Your task to perform on an android device: toggle airplane mode Image 0: 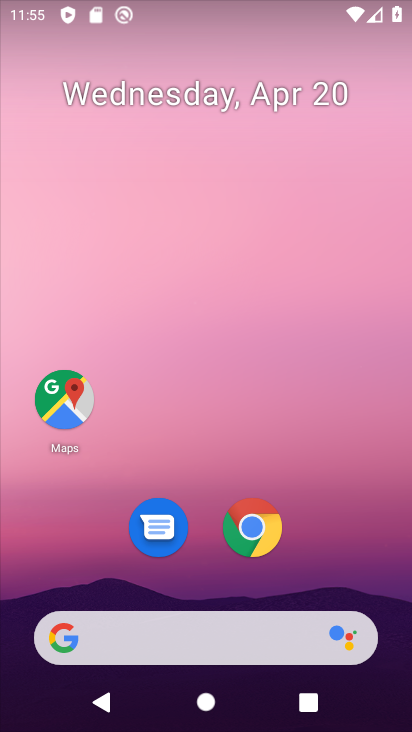
Step 0: drag from (367, 565) to (286, 73)
Your task to perform on an android device: toggle airplane mode Image 1: 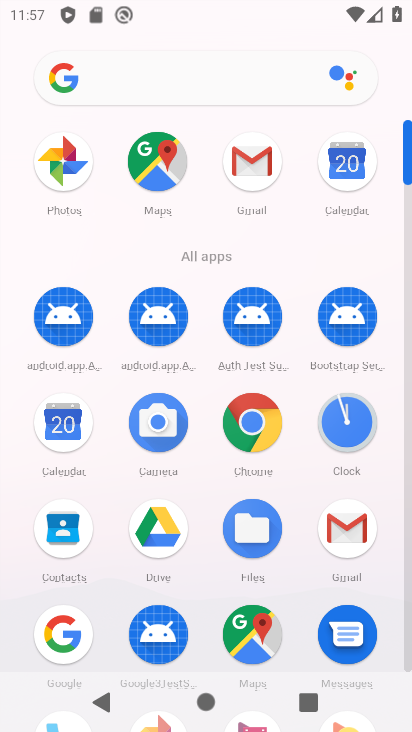
Step 1: drag from (250, 4) to (306, 512)
Your task to perform on an android device: toggle airplane mode Image 2: 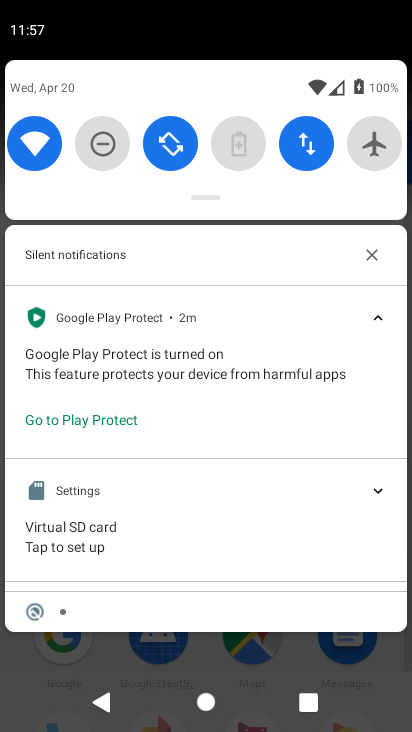
Step 2: click (365, 141)
Your task to perform on an android device: toggle airplane mode Image 3: 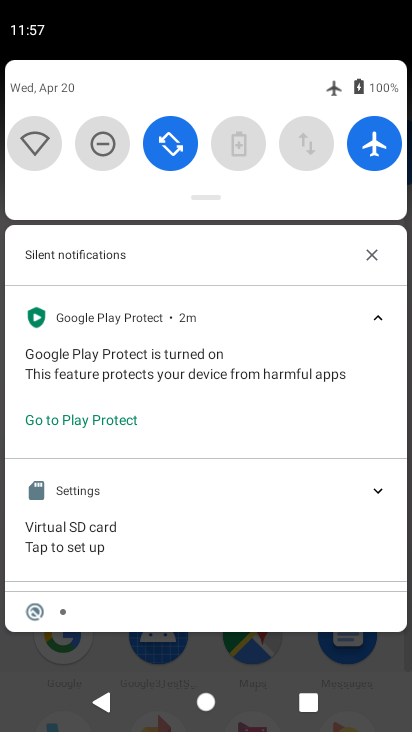
Step 3: task complete